Your task to perform on an android device: How much does a 3 bedroom apartment rent for in Dallas? Image 0: 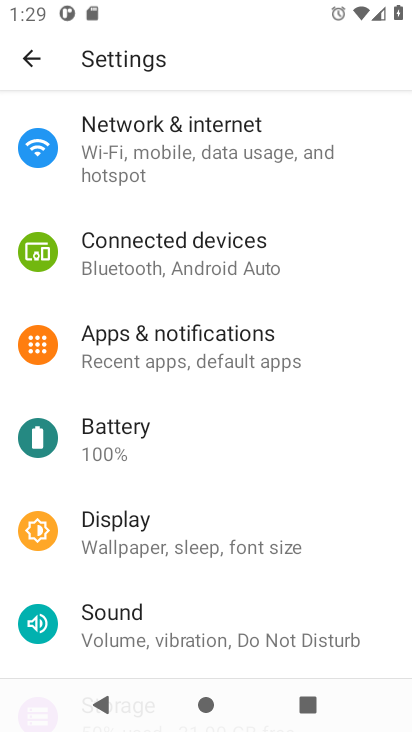
Step 0: press home button
Your task to perform on an android device: How much does a 3 bedroom apartment rent for in Dallas? Image 1: 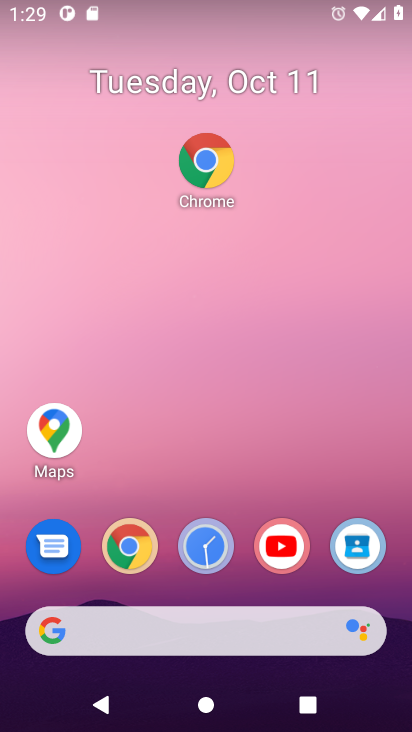
Step 1: click (123, 547)
Your task to perform on an android device: How much does a 3 bedroom apartment rent for in Dallas? Image 2: 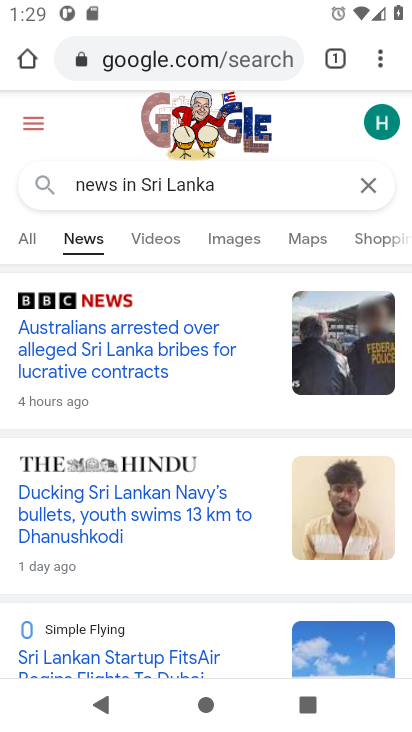
Step 2: click (249, 52)
Your task to perform on an android device: How much does a 3 bedroom apartment rent for in Dallas? Image 3: 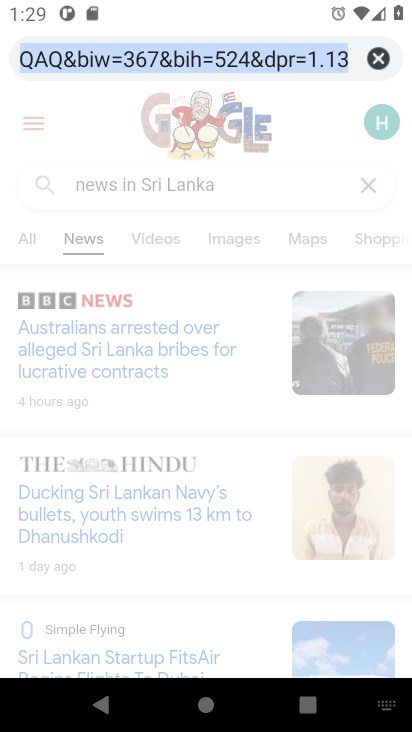
Step 3: type "3 bedroom apartment rent in Dallas"
Your task to perform on an android device: How much does a 3 bedroom apartment rent for in Dallas? Image 4: 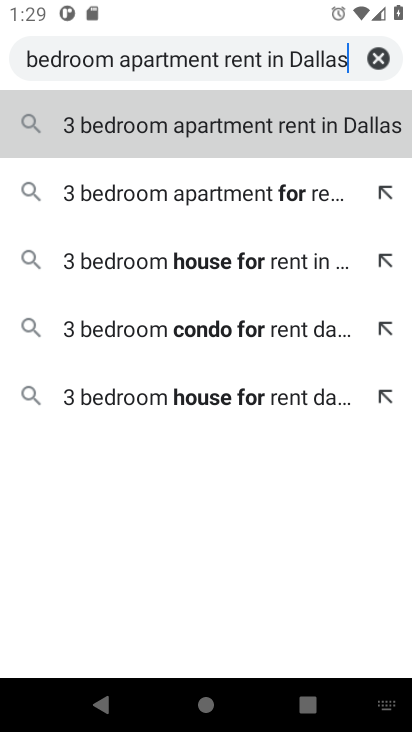
Step 4: type ""
Your task to perform on an android device: How much does a 3 bedroom apartment rent for in Dallas? Image 5: 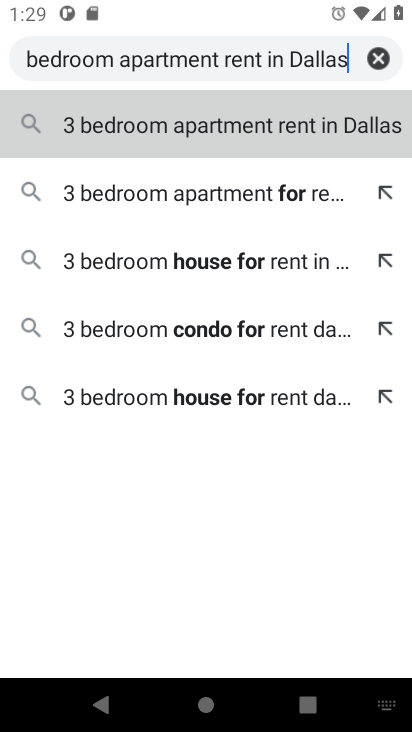
Step 5: press enter
Your task to perform on an android device: How much does a 3 bedroom apartment rent for in Dallas? Image 6: 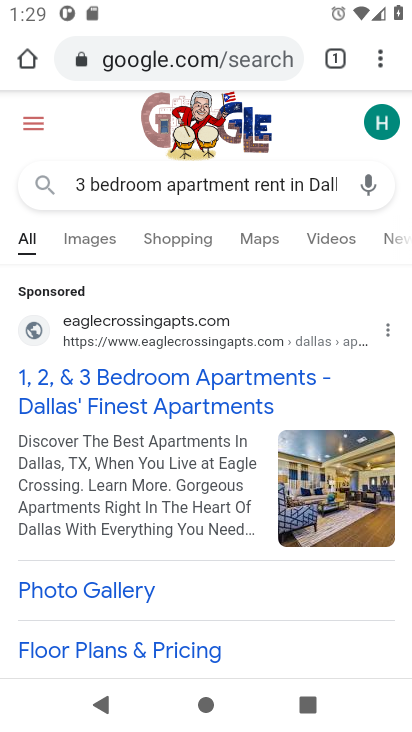
Step 6: drag from (164, 555) to (147, 265)
Your task to perform on an android device: How much does a 3 bedroom apartment rent for in Dallas? Image 7: 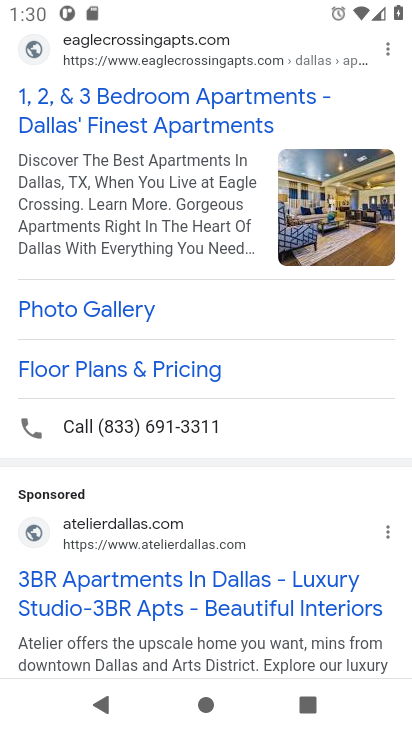
Step 7: drag from (205, 588) to (167, 220)
Your task to perform on an android device: How much does a 3 bedroom apartment rent for in Dallas? Image 8: 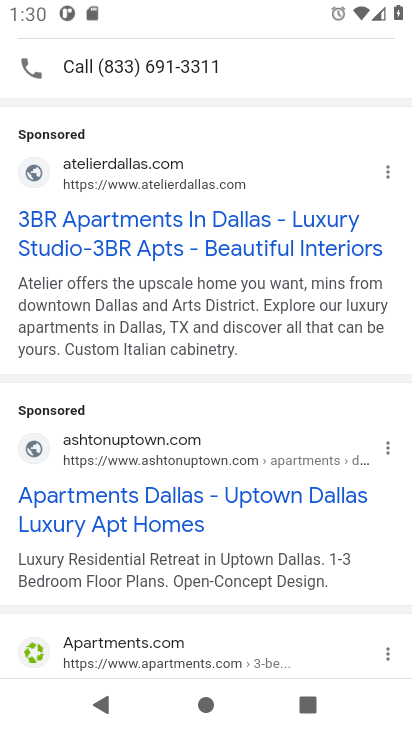
Step 8: drag from (229, 564) to (242, 303)
Your task to perform on an android device: How much does a 3 bedroom apartment rent for in Dallas? Image 9: 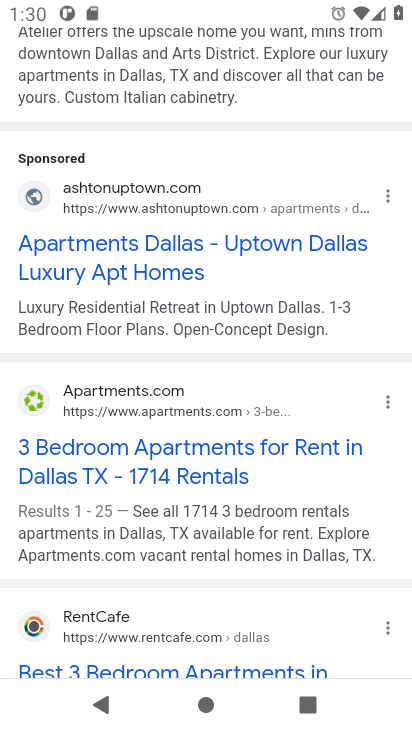
Step 9: click (152, 470)
Your task to perform on an android device: How much does a 3 bedroom apartment rent for in Dallas? Image 10: 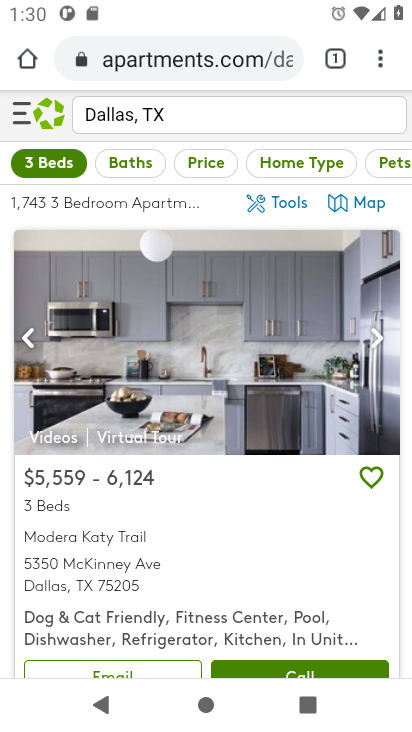
Step 10: drag from (229, 590) to (257, 465)
Your task to perform on an android device: How much does a 3 bedroom apartment rent for in Dallas? Image 11: 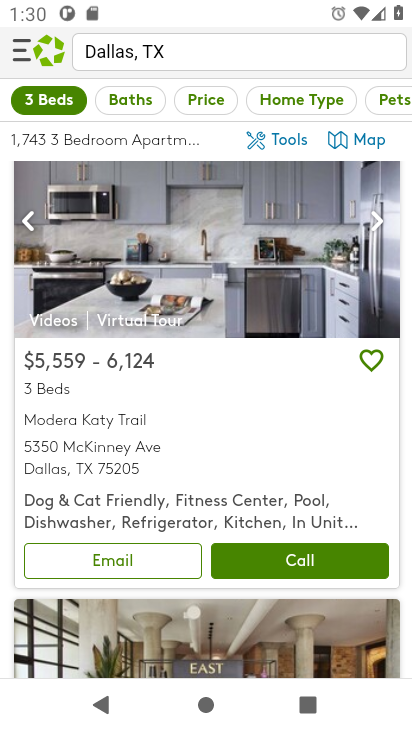
Step 11: click (146, 443)
Your task to perform on an android device: How much does a 3 bedroom apartment rent for in Dallas? Image 12: 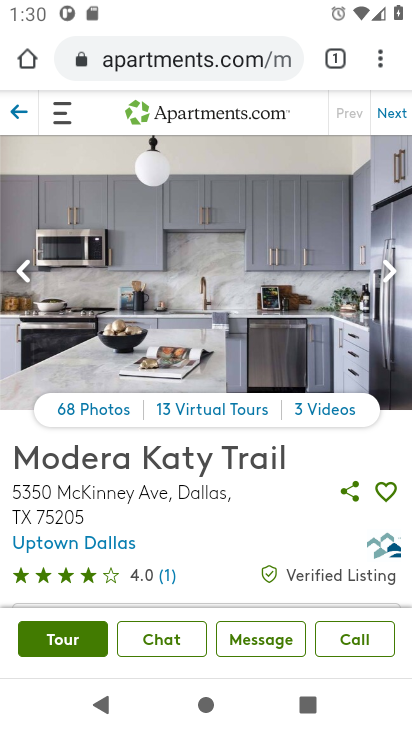
Step 12: click (398, 269)
Your task to perform on an android device: How much does a 3 bedroom apartment rent for in Dallas? Image 13: 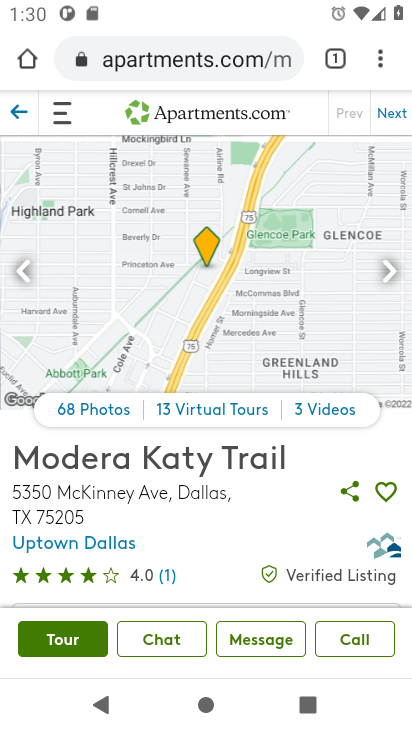
Step 13: click (398, 269)
Your task to perform on an android device: How much does a 3 bedroom apartment rent for in Dallas? Image 14: 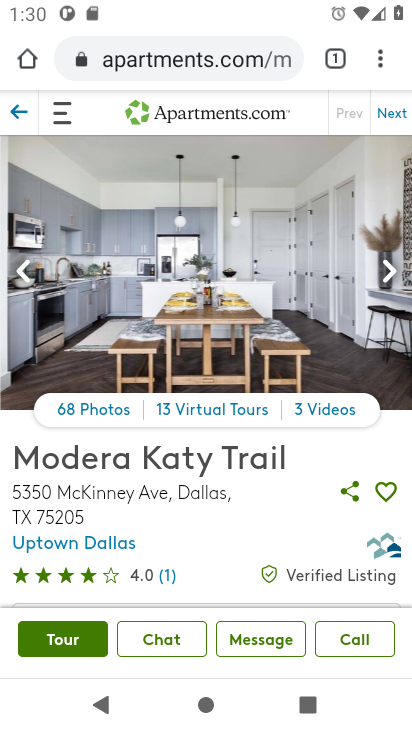
Step 14: click (398, 269)
Your task to perform on an android device: How much does a 3 bedroom apartment rent for in Dallas? Image 15: 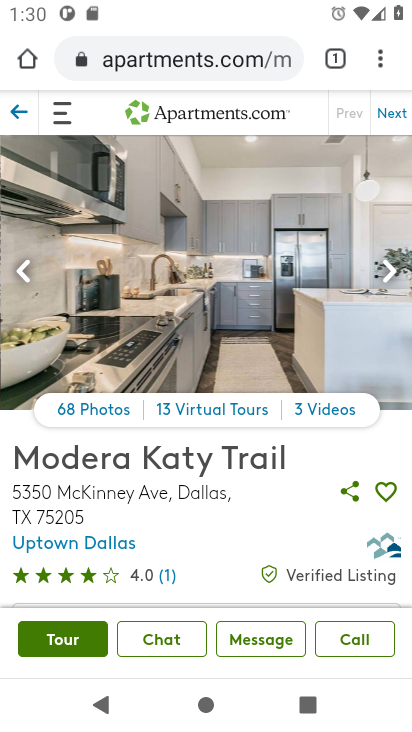
Step 15: click (398, 269)
Your task to perform on an android device: How much does a 3 bedroom apartment rent for in Dallas? Image 16: 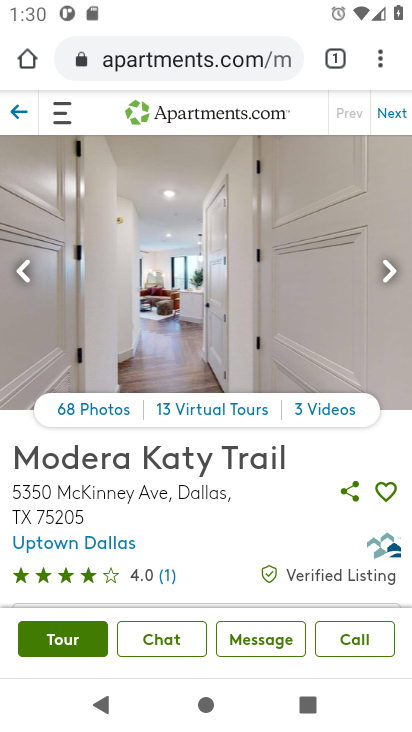
Step 16: click (21, 111)
Your task to perform on an android device: How much does a 3 bedroom apartment rent for in Dallas? Image 17: 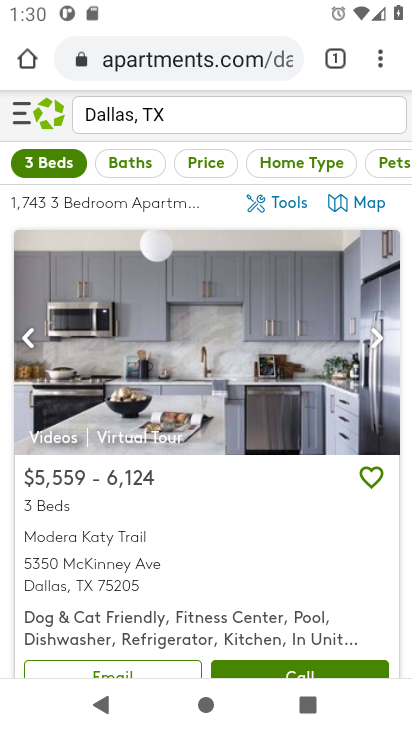
Step 17: drag from (201, 540) to (170, 205)
Your task to perform on an android device: How much does a 3 bedroom apartment rent for in Dallas? Image 18: 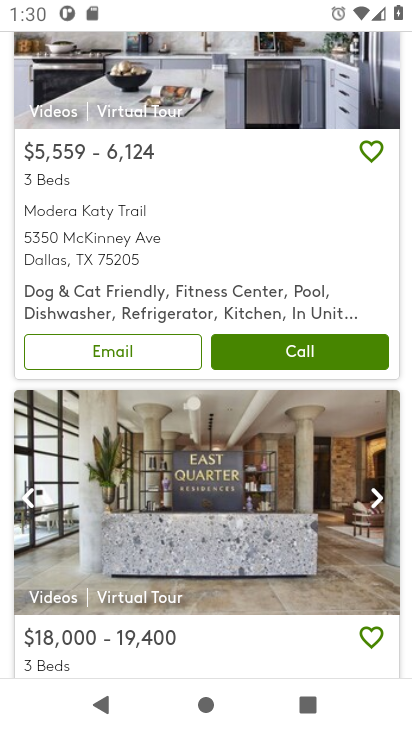
Step 18: drag from (197, 547) to (181, 402)
Your task to perform on an android device: How much does a 3 bedroom apartment rent for in Dallas? Image 19: 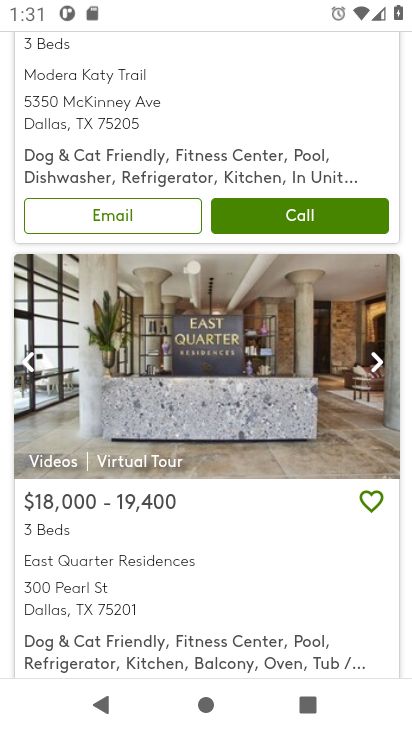
Step 19: click (206, 416)
Your task to perform on an android device: How much does a 3 bedroom apartment rent for in Dallas? Image 20: 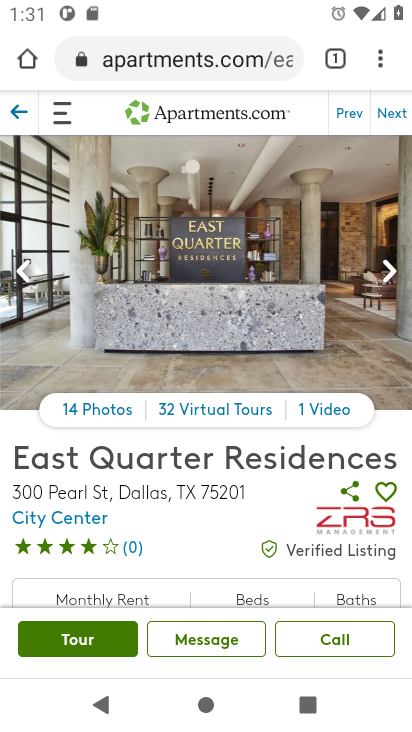
Step 20: click (391, 274)
Your task to perform on an android device: How much does a 3 bedroom apartment rent for in Dallas? Image 21: 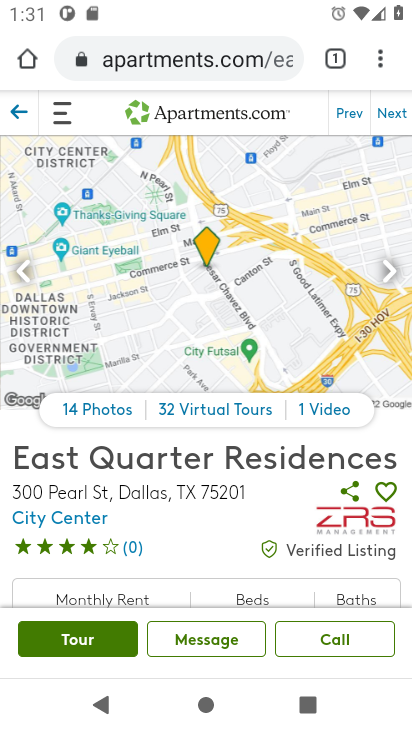
Step 21: click (391, 274)
Your task to perform on an android device: How much does a 3 bedroom apartment rent for in Dallas? Image 22: 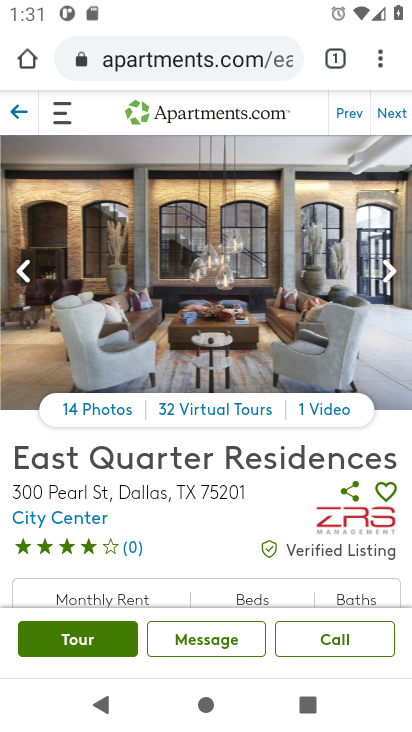
Step 22: click (391, 274)
Your task to perform on an android device: How much does a 3 bedroom apartment rent for in Dallas? Image 23: 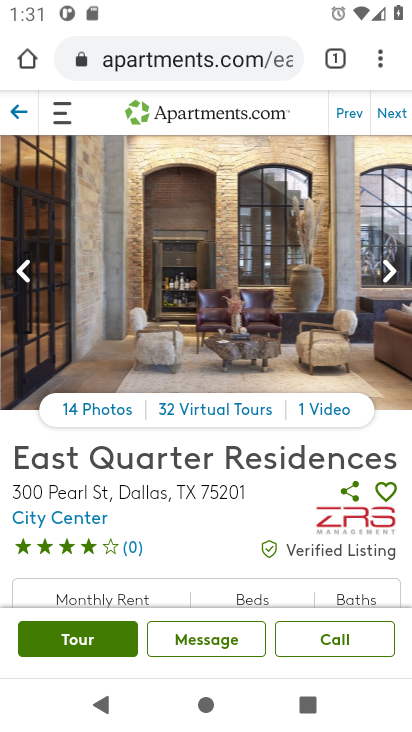
Step 23: click (391, 274)
Your task to perform on an android device: How much does a 3 bedroom apartment rent for in Dallas? Image 24: 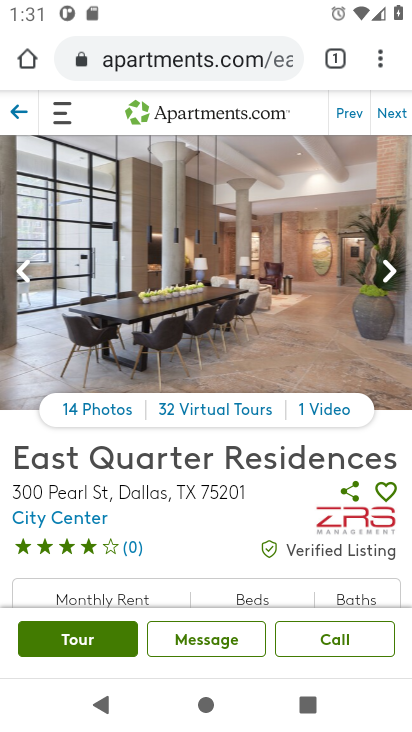
Step 24: click (391, 274)
Your task to perform on an android device: How much does a 3 bedroom apartment rent for in Dallas? Image 25: 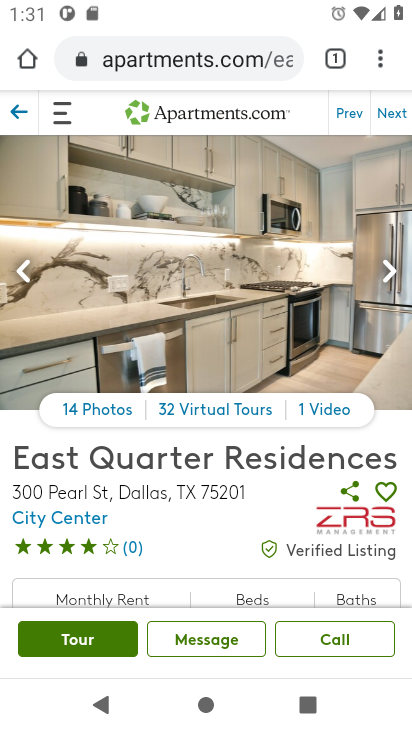
Step 25: click (11, 112)
Your task to perform on an android device: How much does a 3 bedroom apartment rent for in Dallas? Image 26: 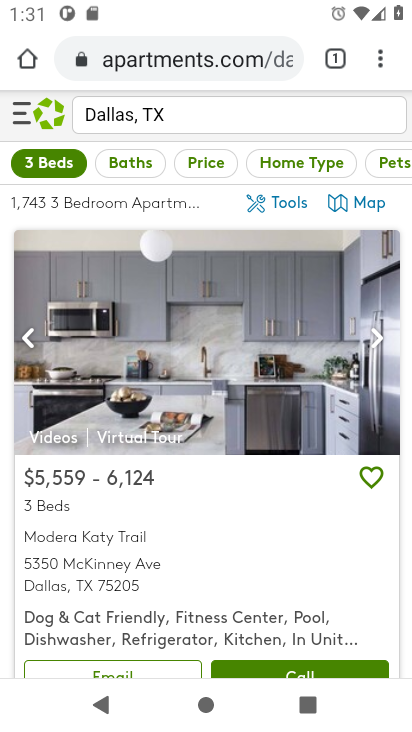
Step 26: task complete